Your task to perform on an android device: check battery use Image 0: 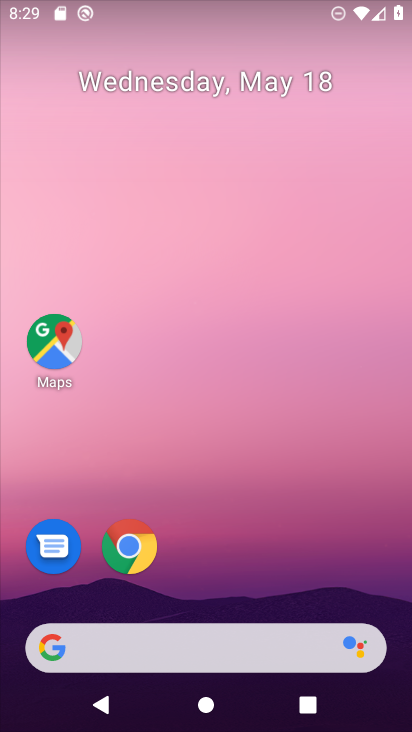
Step 0: drag from (244, 666) to (317, 257)
Your task to perform on an android device: check battery use Image 1: 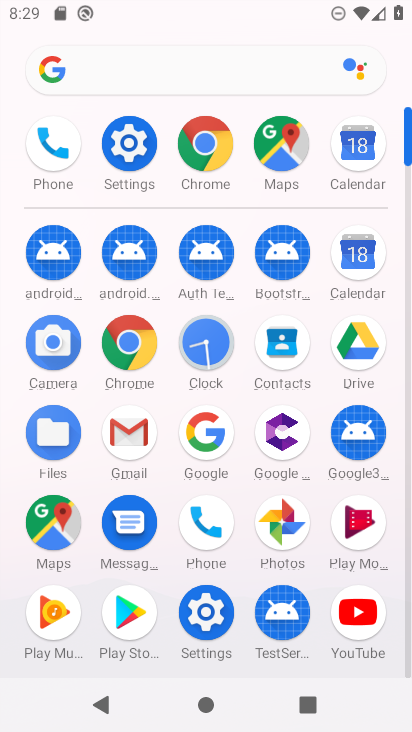
Step 1: click (136, 162)
Your task to perform on an android device: check battery use Image 2: 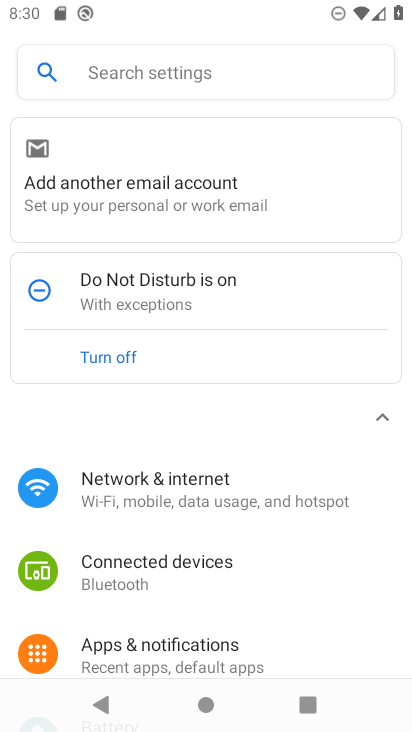
Step 2: drag from (141, 574) to (182, 312)
Your task to perform on an android device: check battery use Image 3: 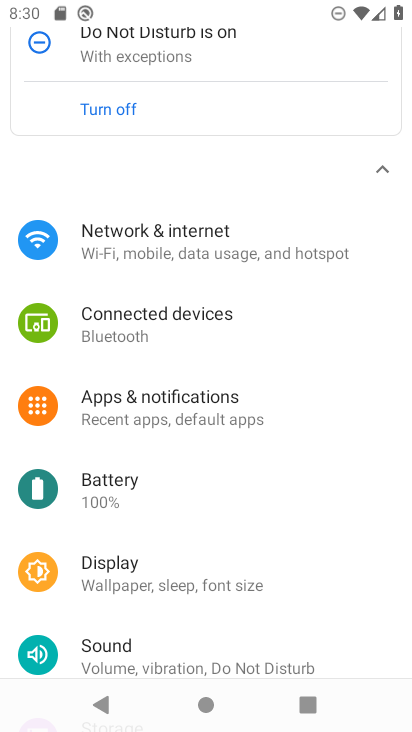
Step 3: click (138, 491)
Your task to perform on an android device: check battery use Image 4: 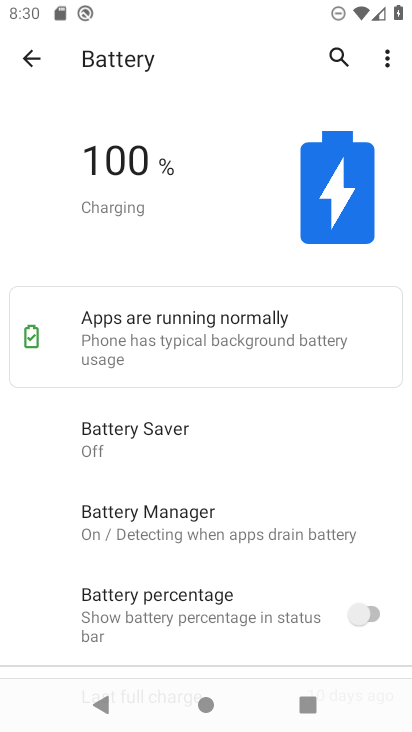
Step 4: task complete